Your task to perform on an android device: turn on translation in the chrome app Image 0: 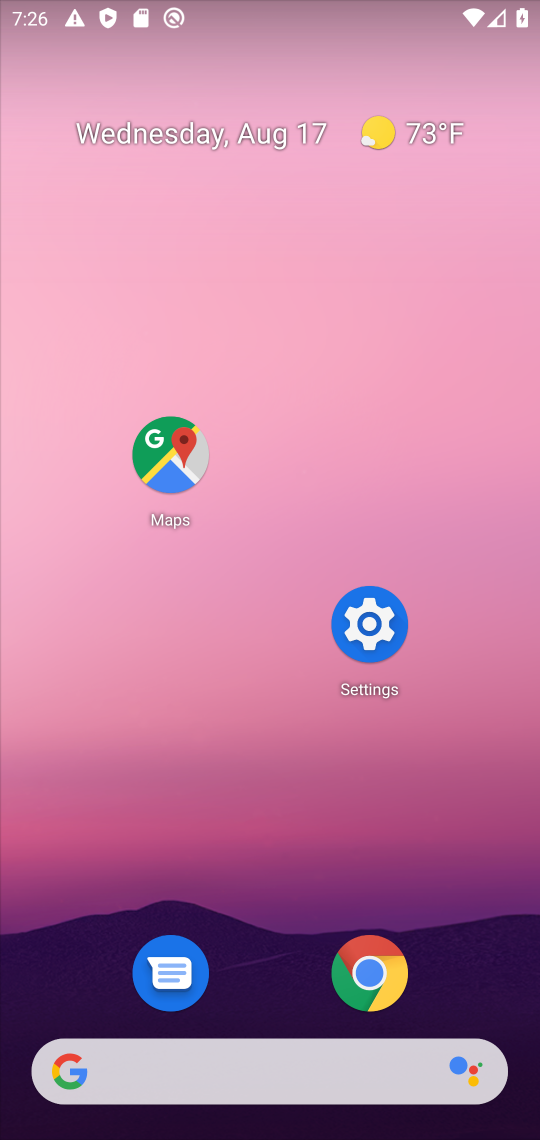
Step 0: click (365, 959)
Your task to perform on an android device: turn on translation in the chrome app Image 1: 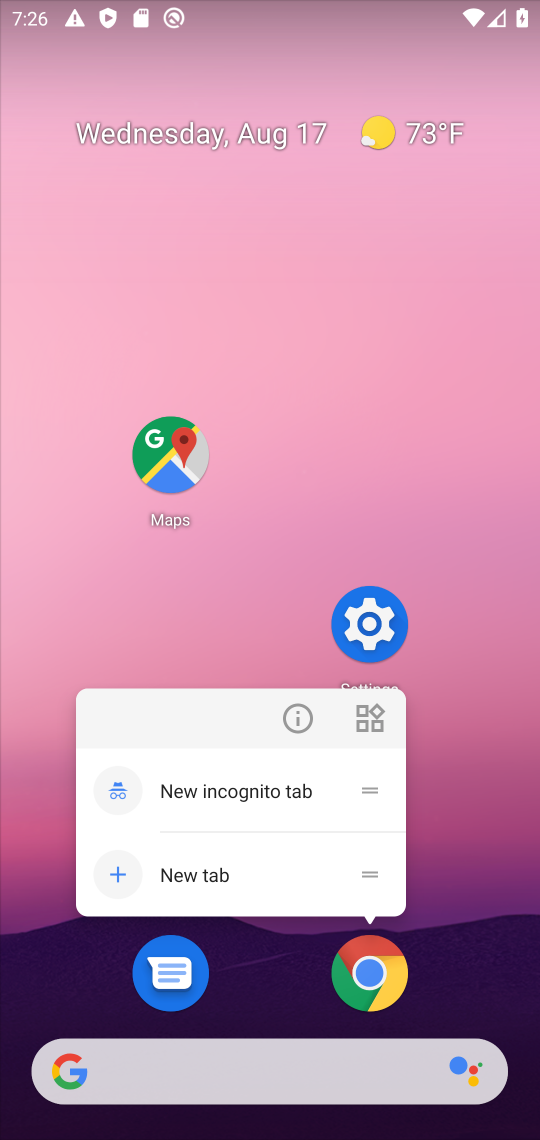
Step 1: click (363, 965)
Your task to perform on an android device: turn on translation in the chrome app Image 2: 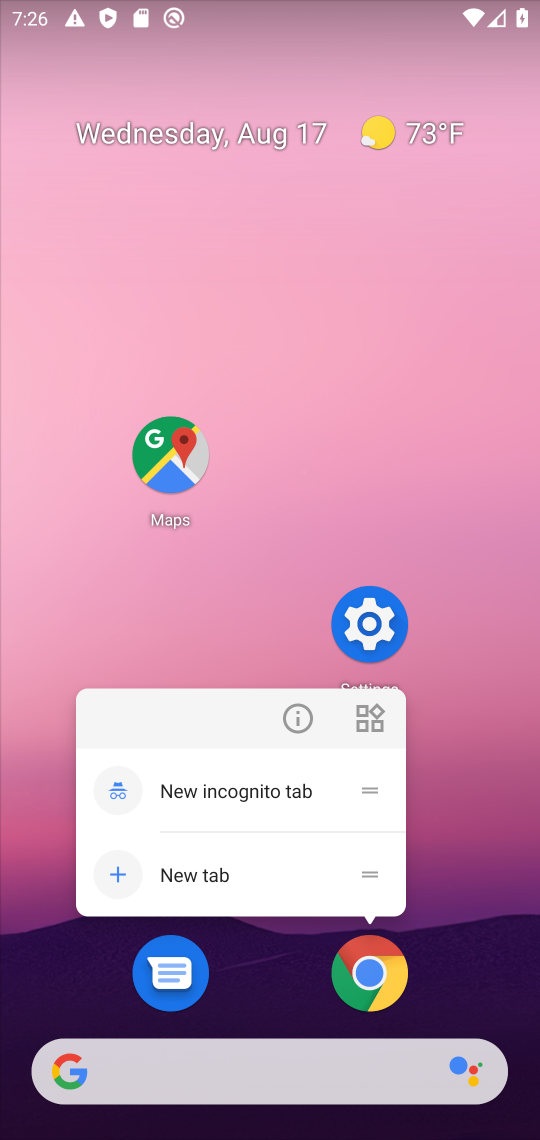
Step 2: click (367, 982)
Your task to perform on an android device: turn on translation in the chrome app Image 3: 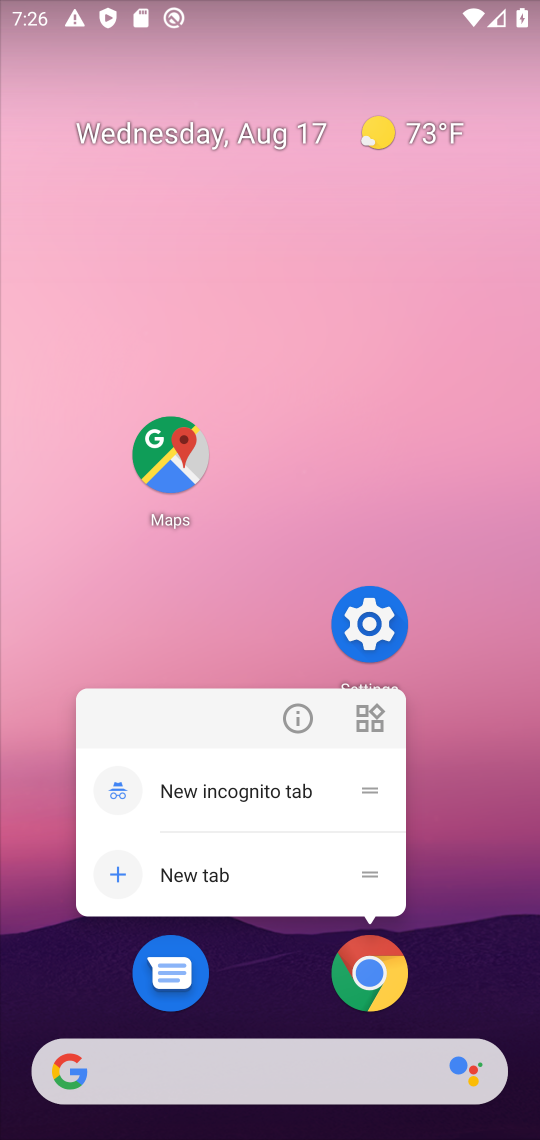
Step 3: click (382, 989)
Your task to perform on an android device: turn on translation in the chrome app Image 4: 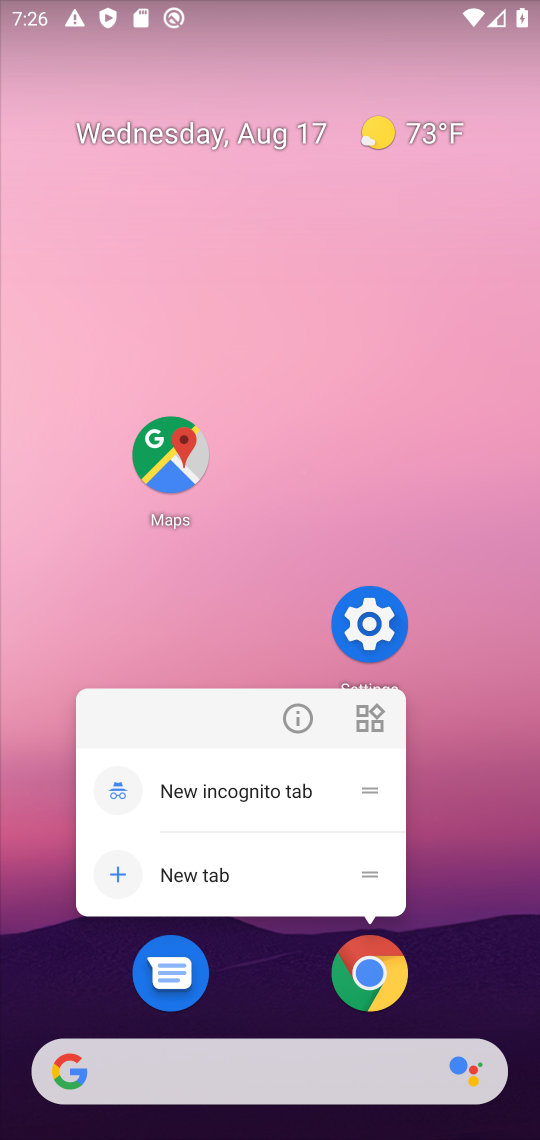
Step 4: click (369, 965)
Your task to perform on an android device: turn on translation in the chrome app Image 5: 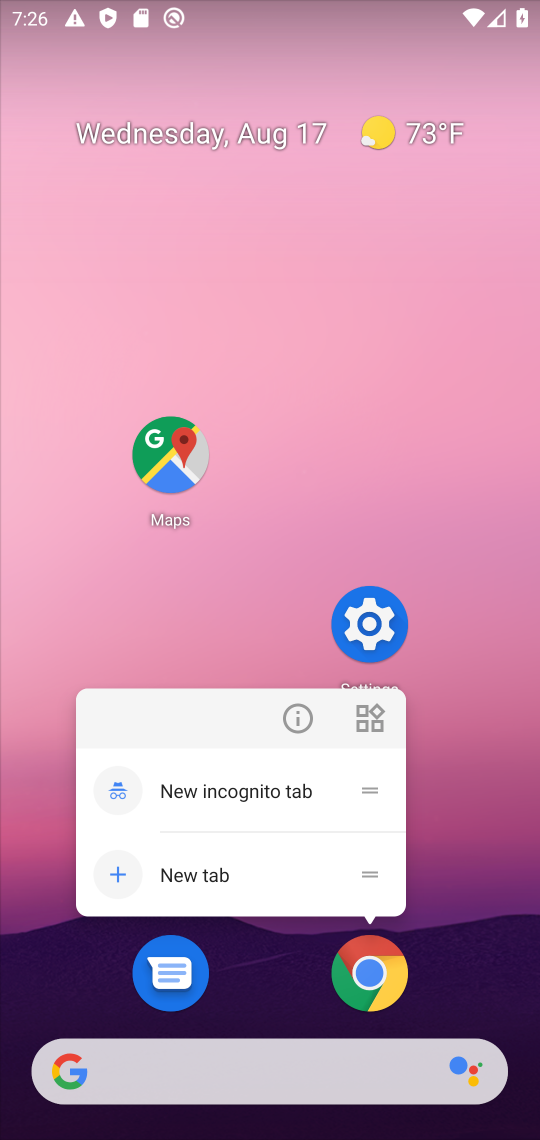
Step 5: click (371, 987)
Your task to perform on an android device: turn on translation in the chrome app Image 6: 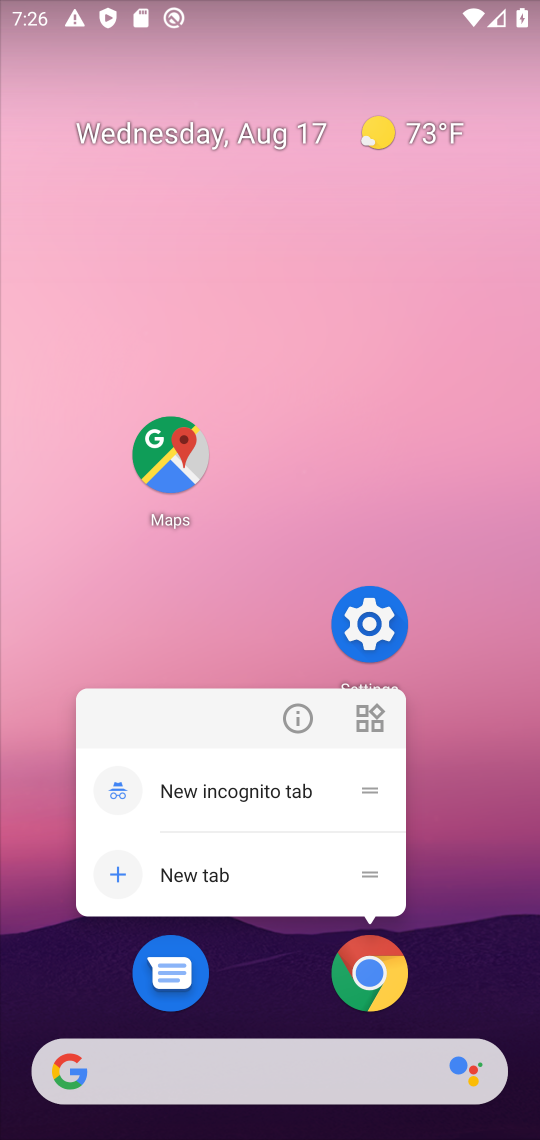
Step 6: click (371, 987)
Your task to perform on an android device: turn on translation in the chrome app Image 7: 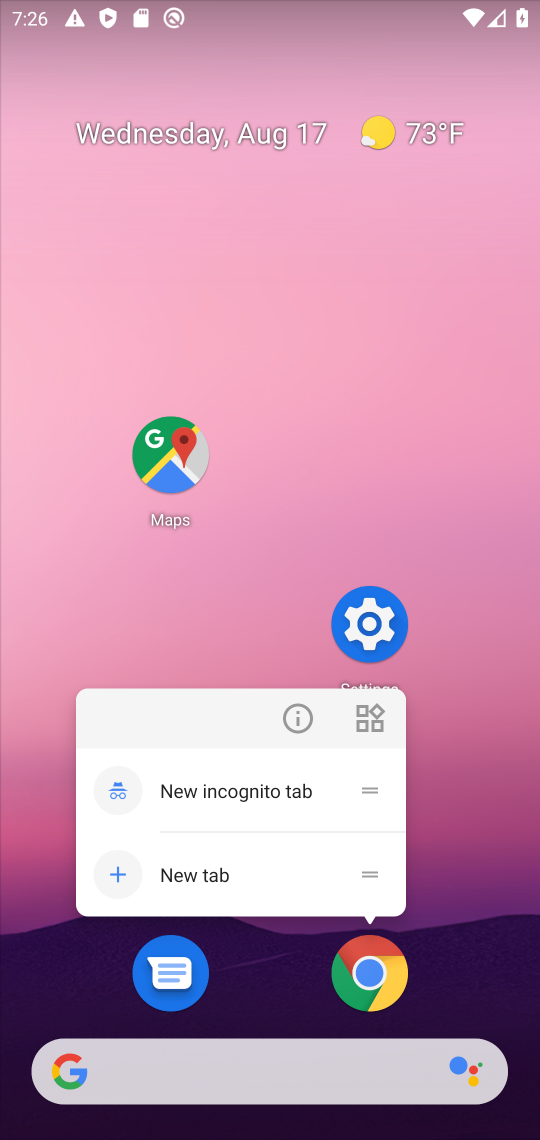
Step 7: click (372, 989)
Your task to perform on an android device: turn on translation in the chrome app Image 8: 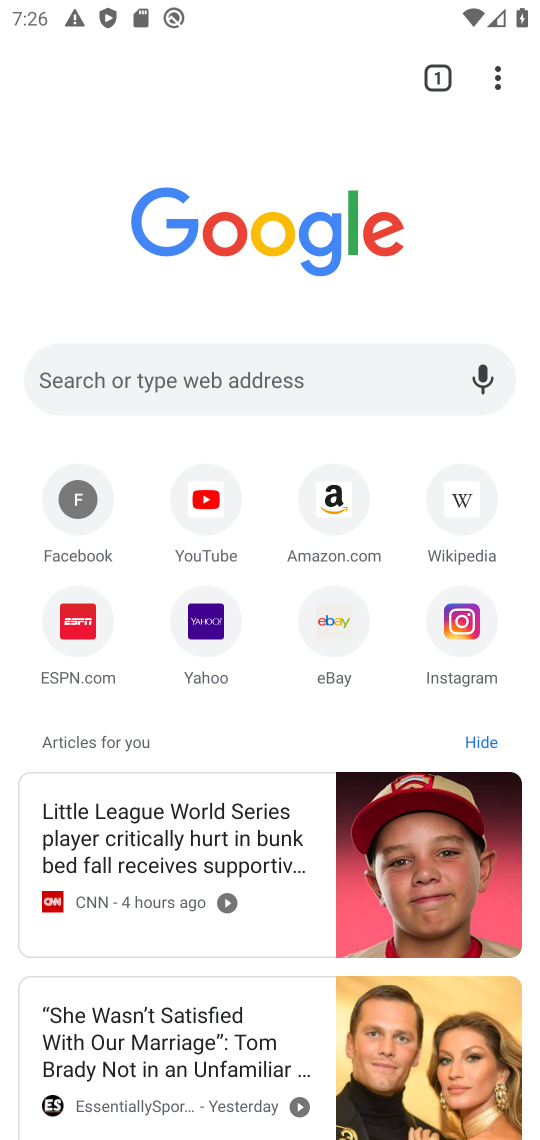
Step 8: drag from (497, 82) to (228, 638)
Your task to perform on an android device: turn on translation in the chrome app Image 9: 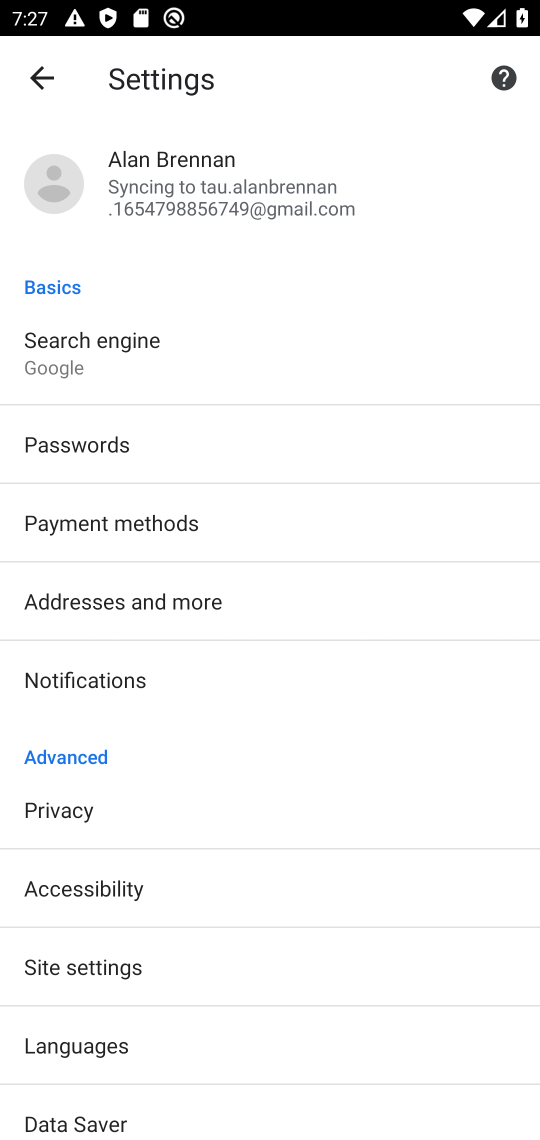
Step 9: drag from (196, 964) to (443, 364)
Your task to perform on an android device: turn on translation in the chrome app Image 10: 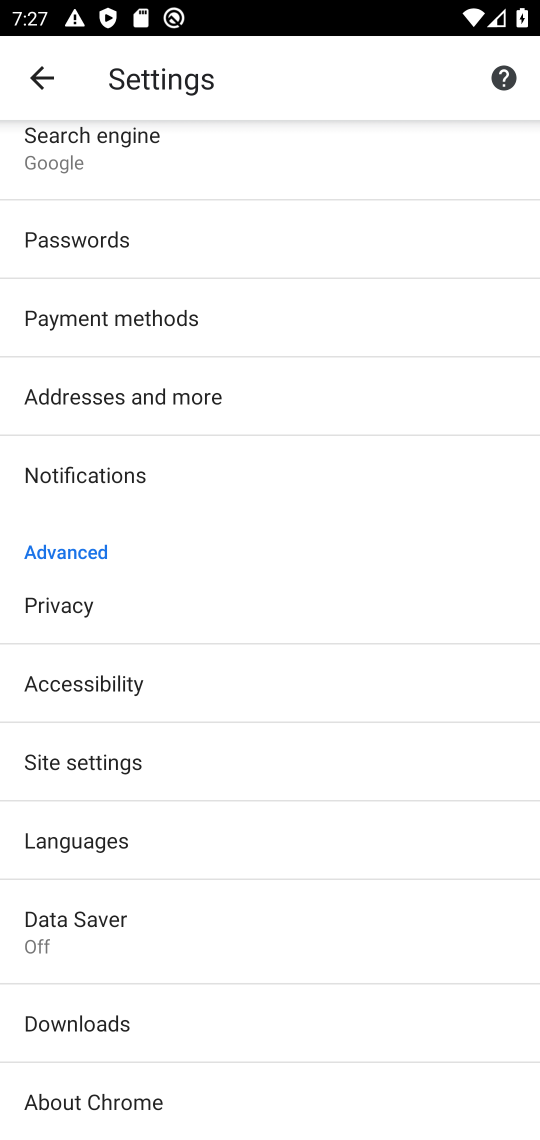
Step 10: click (40, 851)
Your task to perform on an android device: turn on translation in the chrome app Image 11: 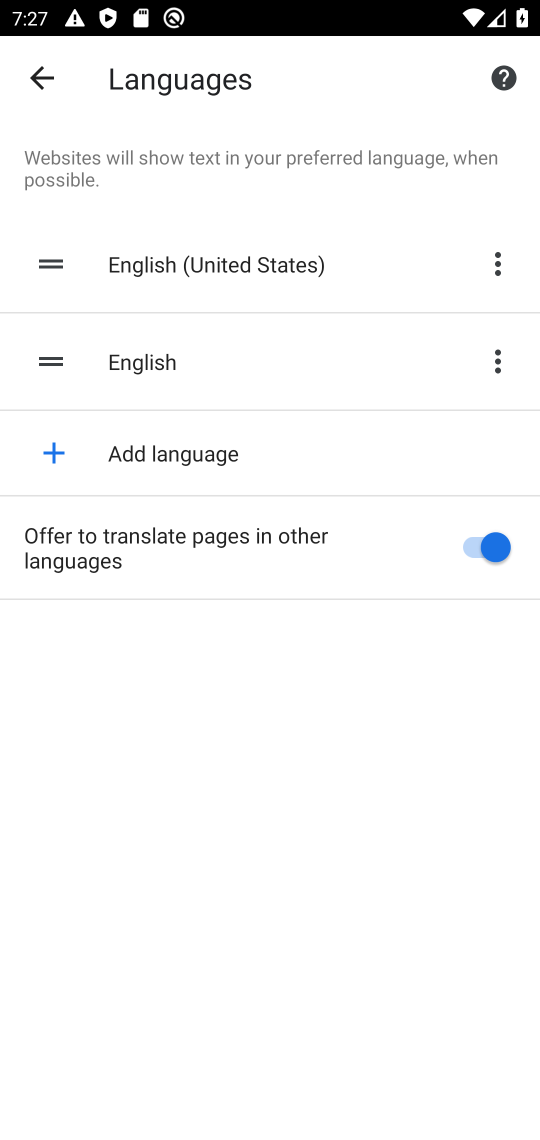
Step 11: task complete